Your task to perform on an android device: Open calendar and show me the third week of next month Image 0: 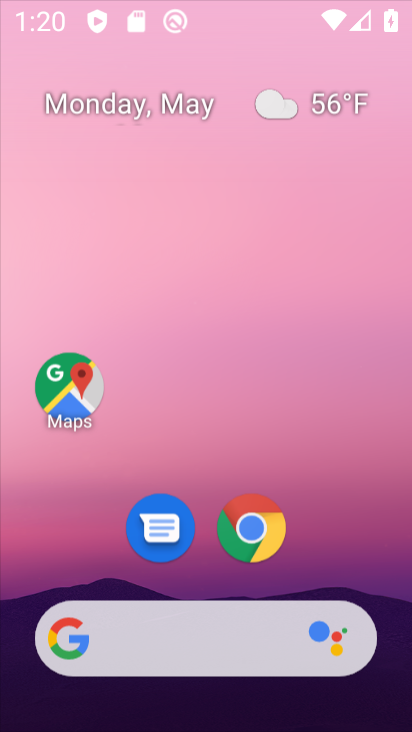
Step 0: drag from (311, 6) to (324, 57)
Your task to perform on an android device: Open calendar and show me the third week of next month Image 1: 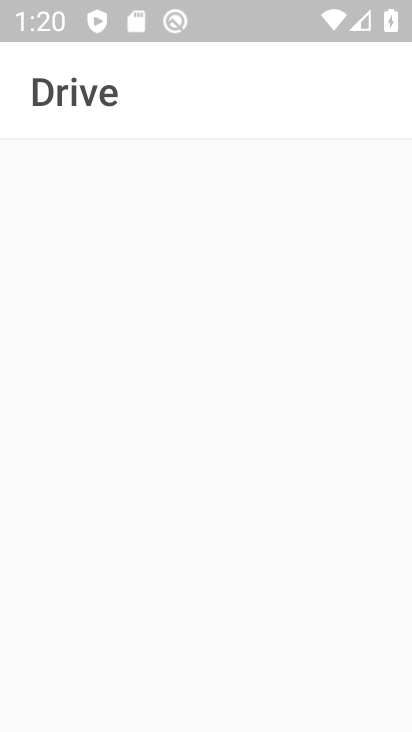
Step 1: press home button
Your task to perform on an android device: Open calendar and show me the third week of next month Image 2: 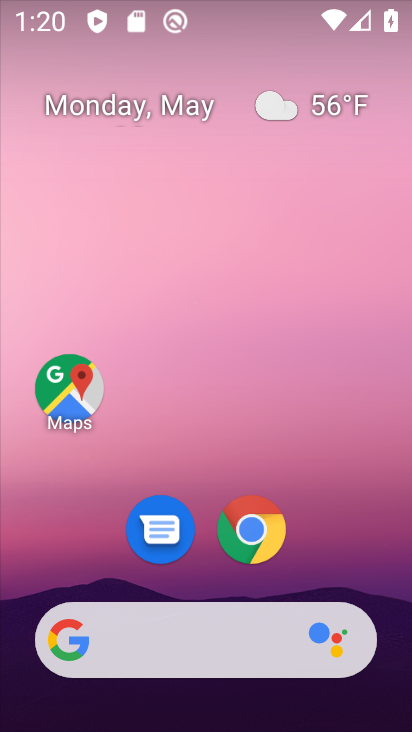
Step 2: drag from (219, 581) to (202, 52)
Your task to perform on an android device: Open calendar and show me the third week of next month Image 3: 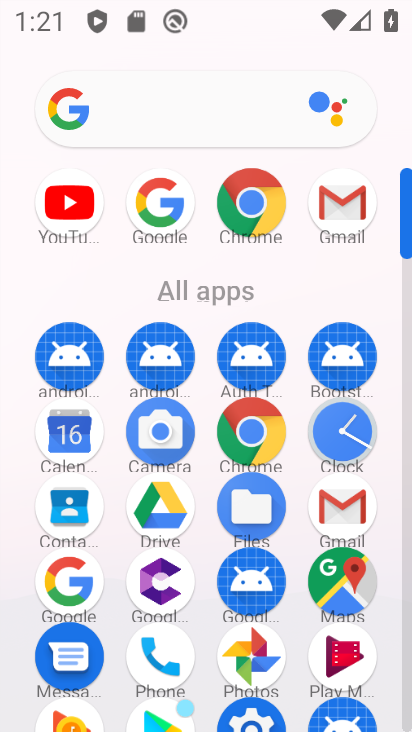
Step 3: click (51, 449)
Your task to perform on an android device: Open calendar and show me the third week of next month Image 4: 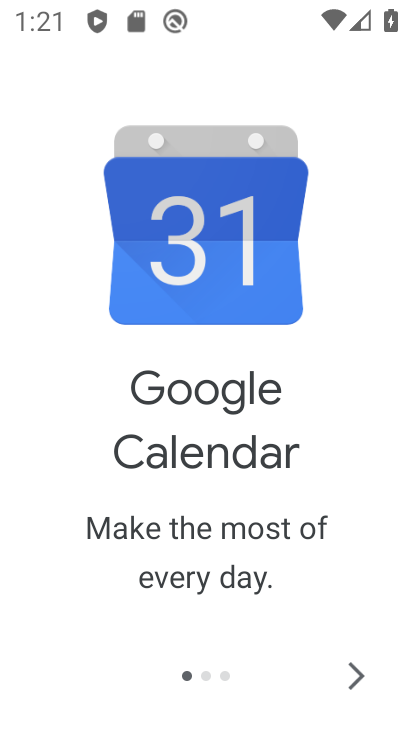
Step 4: click (353, 670)
Your task to perform on an android device: Open calendar and show me the third week of next month Image 5: 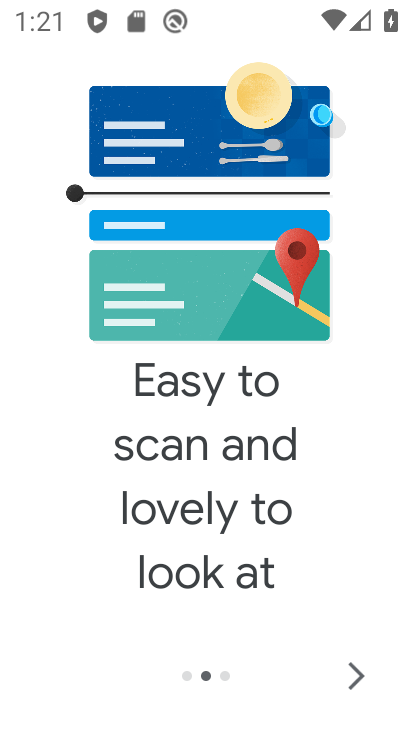
Step 5: click (353, 670)
Your task to perform on an android device: Open calendar and show me the third week of next month Image 6: 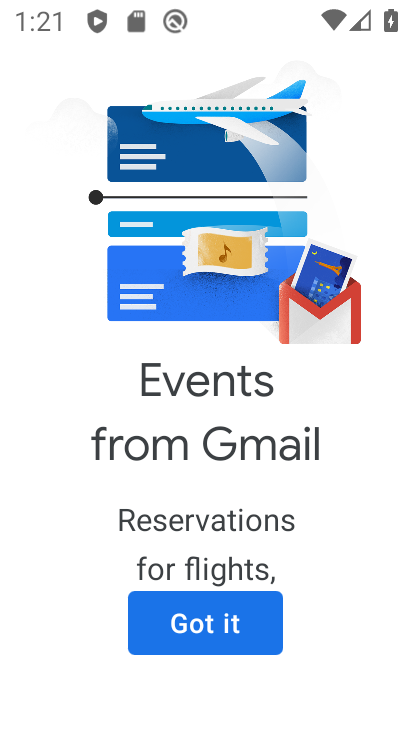
Step 6: click (234, 620)
Your task to perform on an android device: Open calendar and show me the third week of next month Image 7: 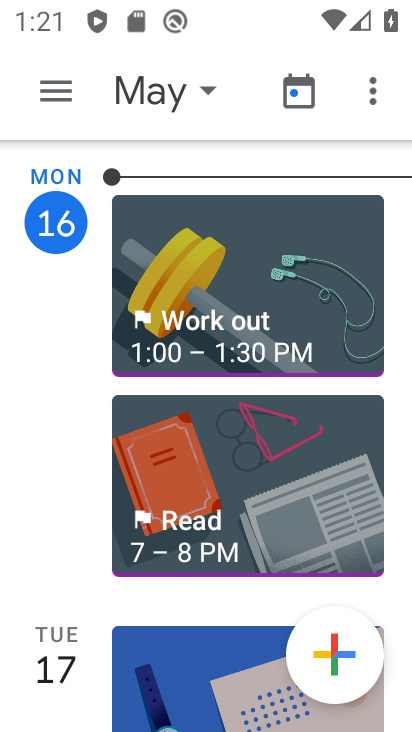
Step 7: click (213, 83)
Your task to perform on an android device: Open calendar and show me the third week of next month Image 8: 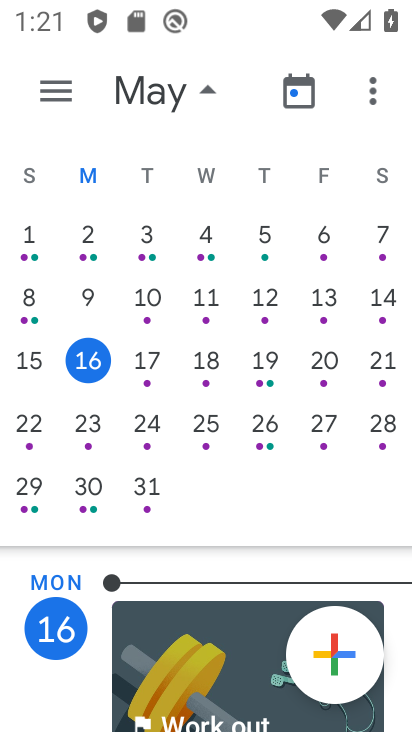
Step 8: drag from (382, 319) to (11, 263)
Your task to perform on an android device: Open calendar and show me the third week of next month Image 9: 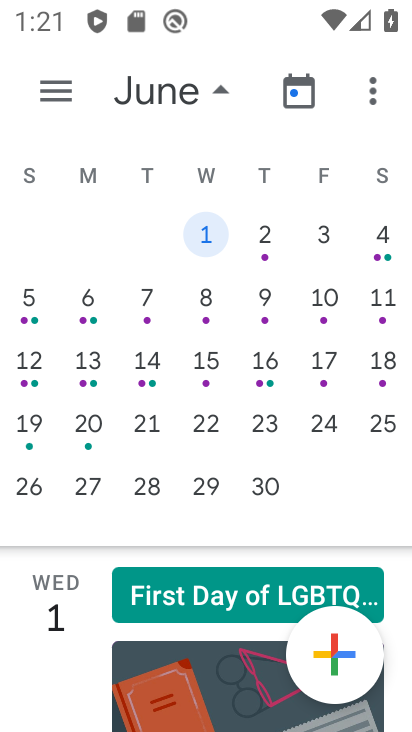
Step 9: click (37, 380)
Your task to perform on an android device: Open calendar and show me the third week of next month Image 10: 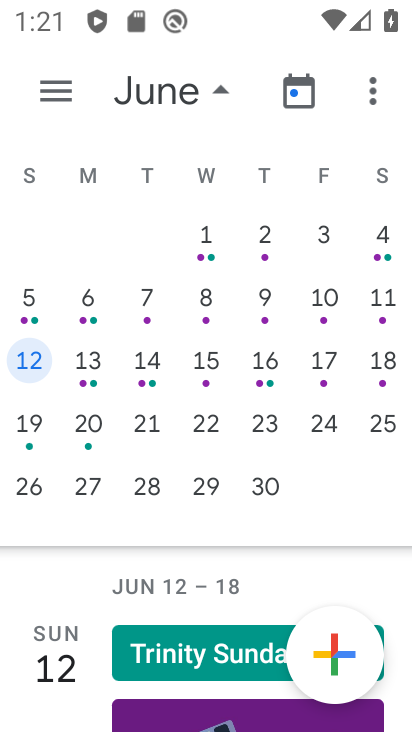
Step 10: task complete